Your task to perform on an android device: Check the best rated table lamp on Crate and Barrel Image 0: 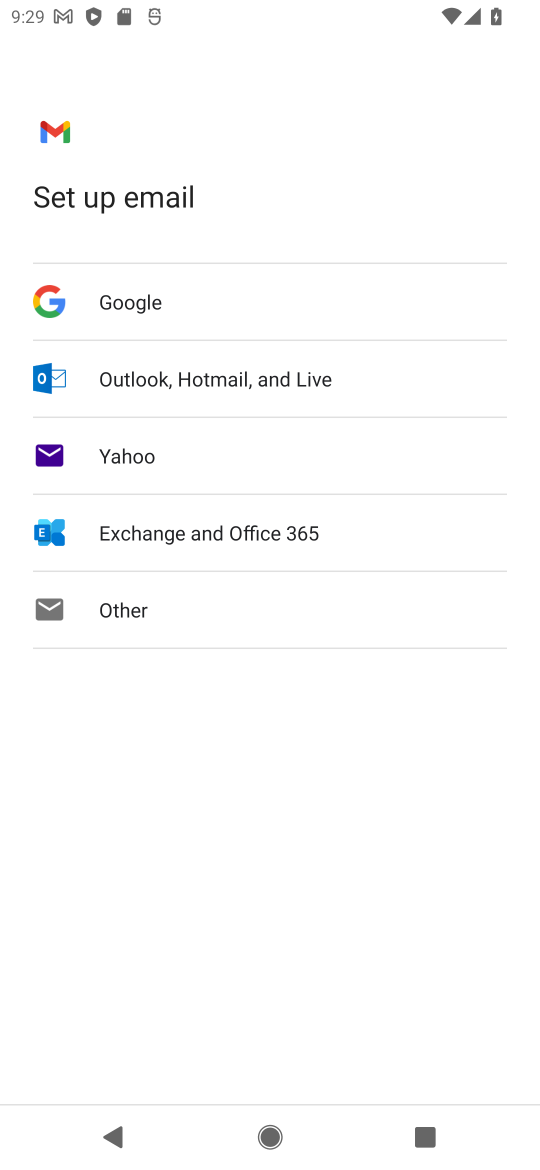
Step 0: press home button
Your task to perform on an android device: Check the best rated table lamp on Crate and Barrel Image 1: 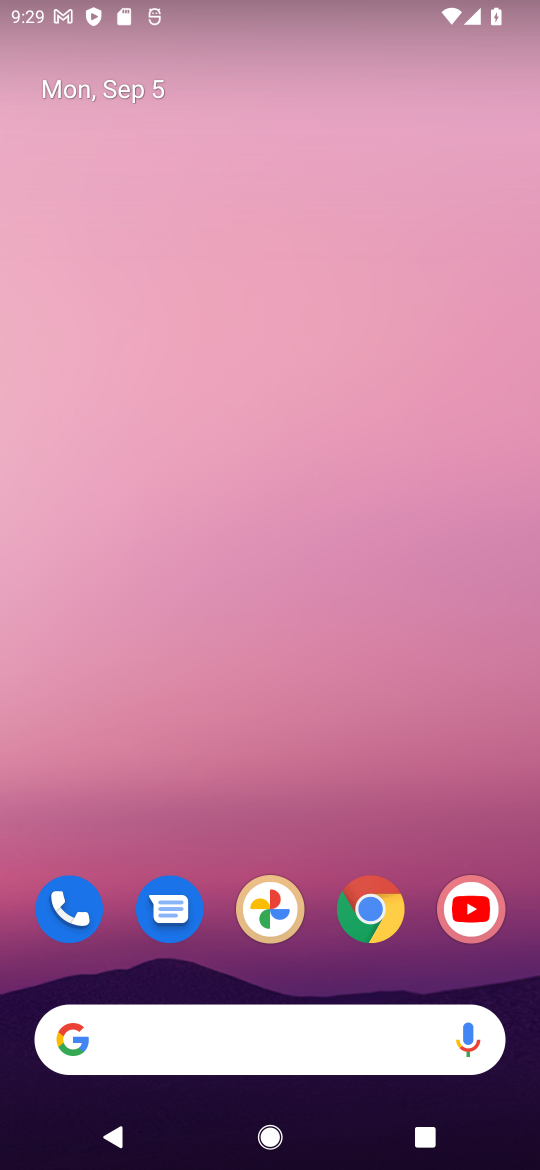
Step 1: click (366, 907)
Your task to perform on an android device: Check the best rated table lamp on Crate and Barrel Image 2: 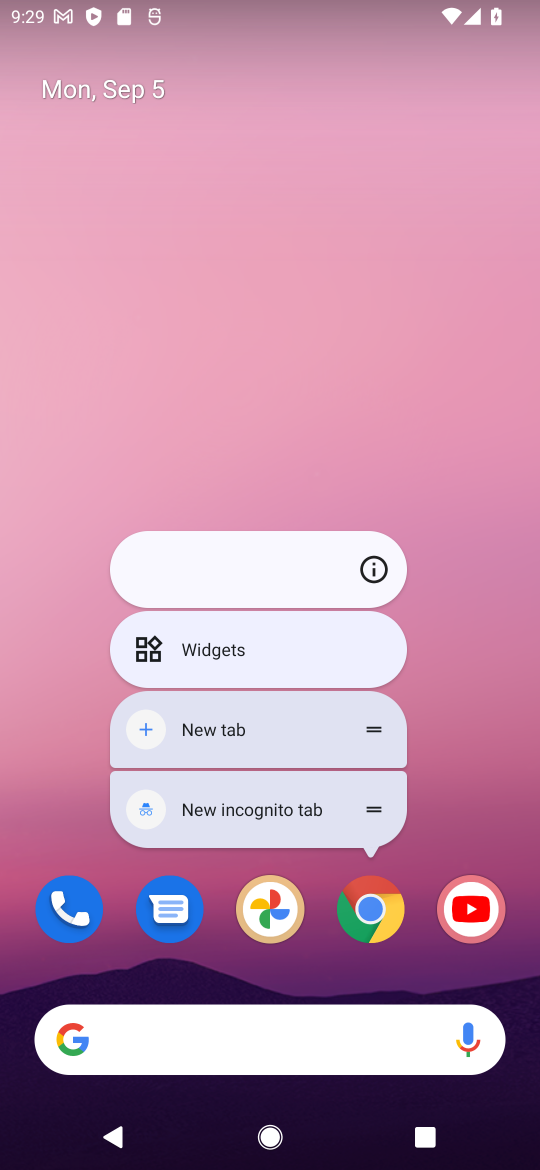
Step 2: click (366, 907)
Your task to perform on an android device: Check the best rated table lamp on Crate and Barrel Image 3: 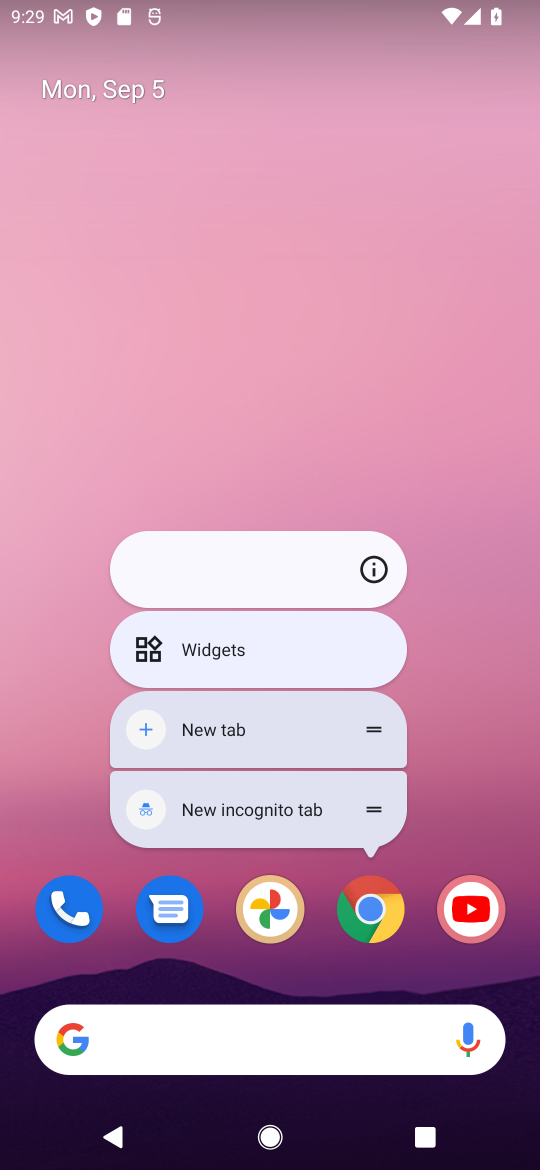
Step 3: click (366, 907)
Your task to perform on an android device: Check the best rated table lamp on Crate and Barrel Image 4: 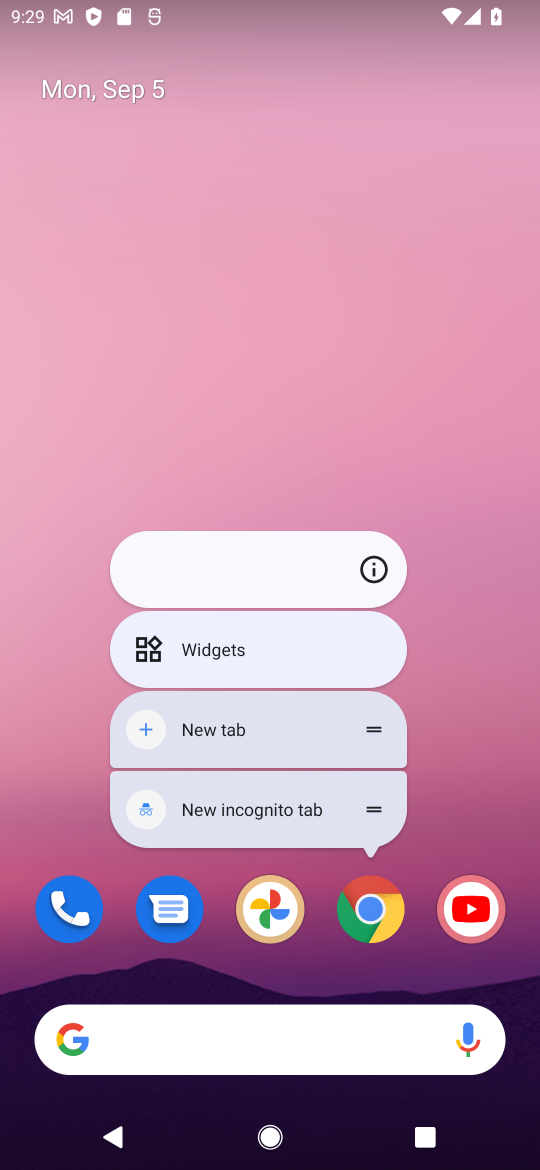
Step 4: click (366, 907)
Your task to perform on an android device: Check the best rated table lamp on Crate and Barrel Image 5: 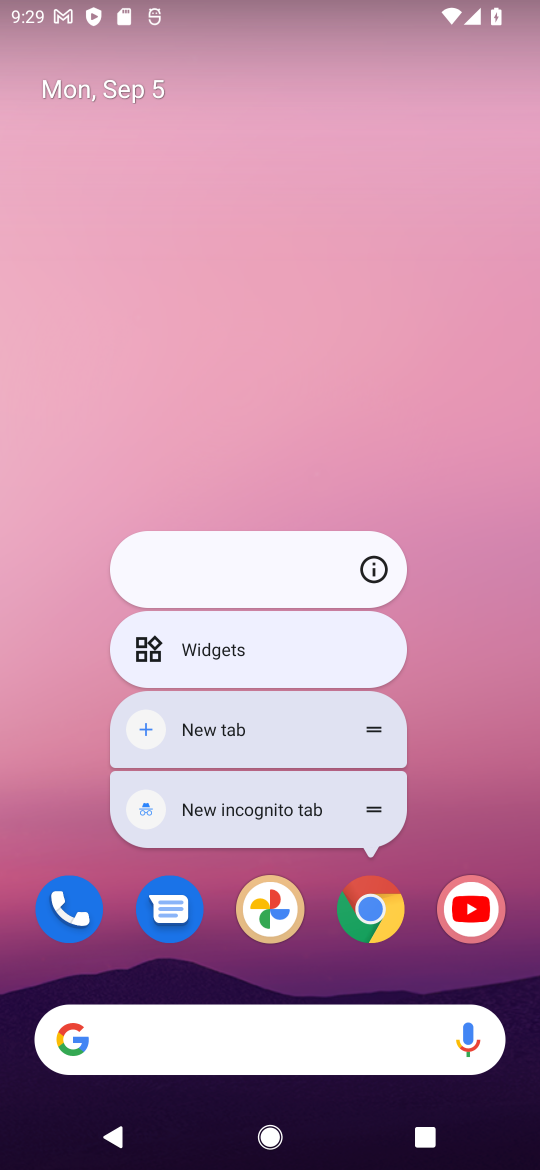
Step 5: click (366, 907)
Your task to perform on an android device: Check the best rated table lamp on Crate and Barrel Image 6: 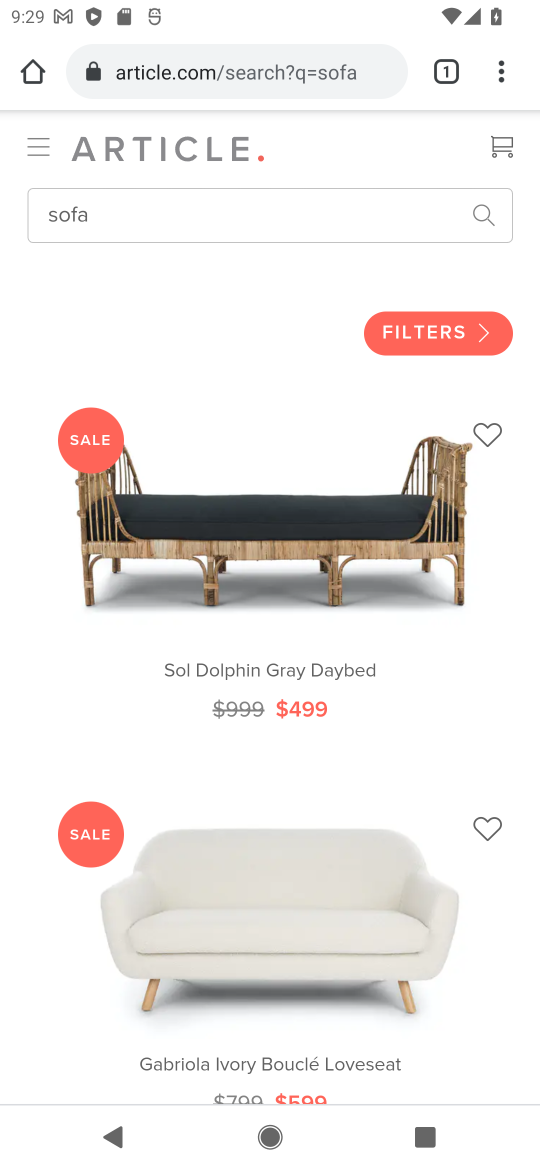
Step 6: click (255, 69)
Your task to perform on an android device: Check the best rated table lamp on Crate and Barrel Image 7: 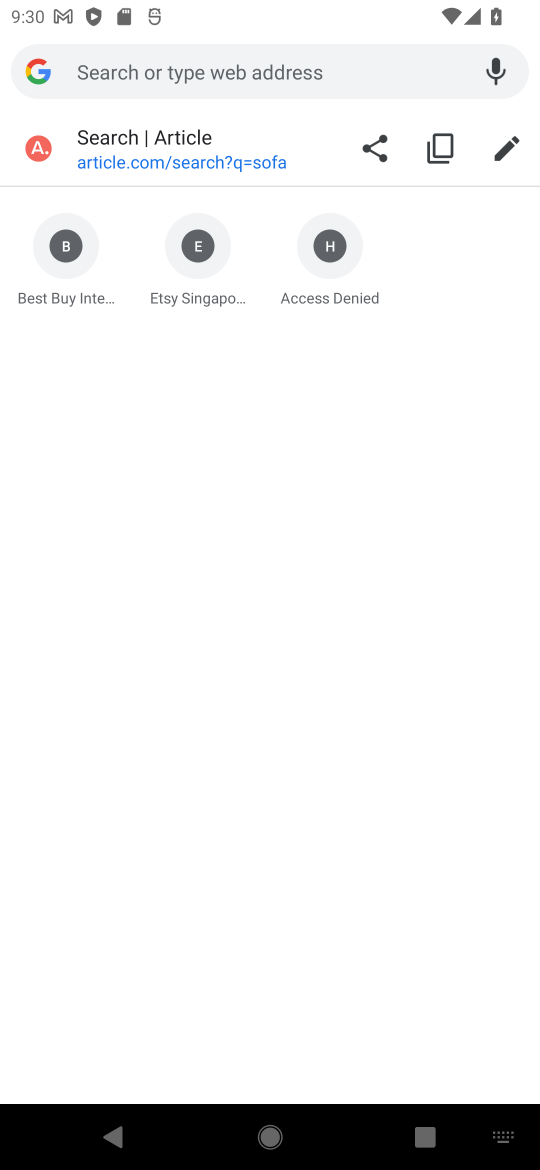
Step 7: type "crate and barrel"
Your task to perform on an android device: Check the best rated table lamp on Crate and Barrel Image 8: 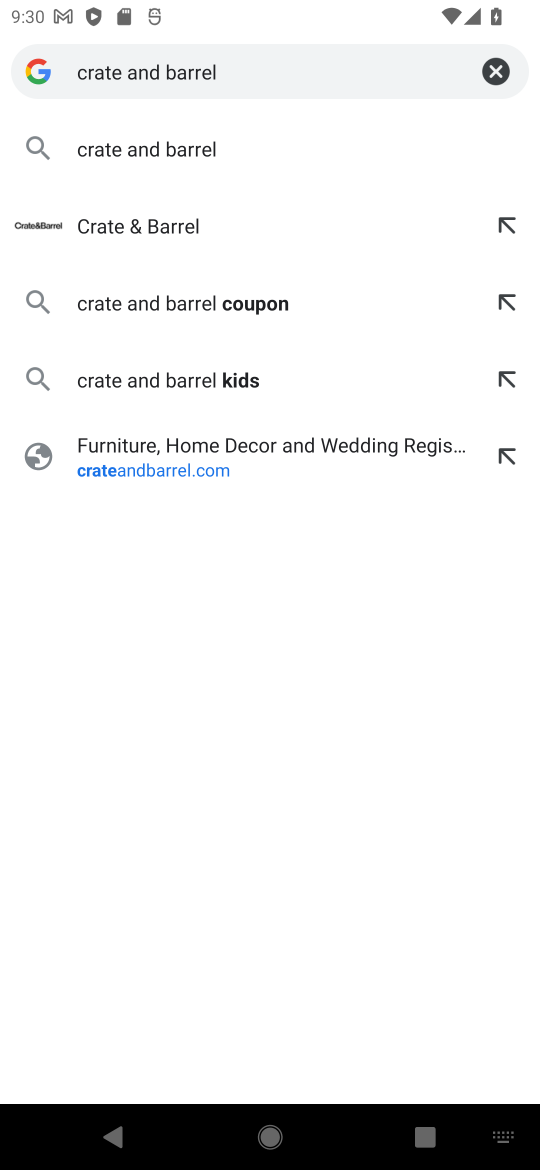
Step 8: click (253, 444)
Your task to perform on an android device: Check the best rated table lamp on Crate and Barrel Image 9: 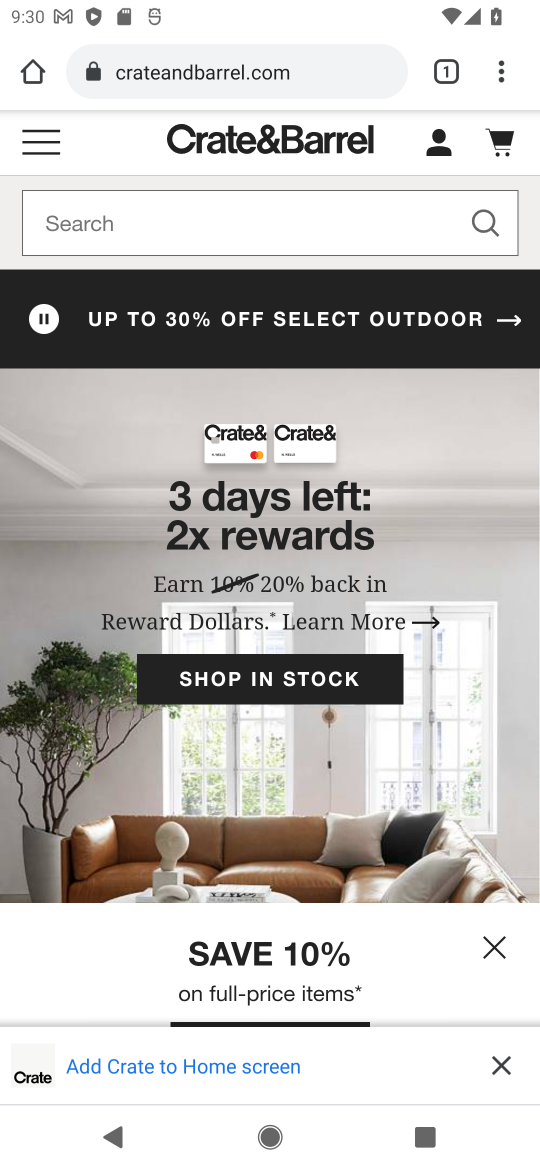
Step 9: click (113, 228)
Your task to perform on an android device: Check the best rated table lamp on Crate and Barrel Image 10: 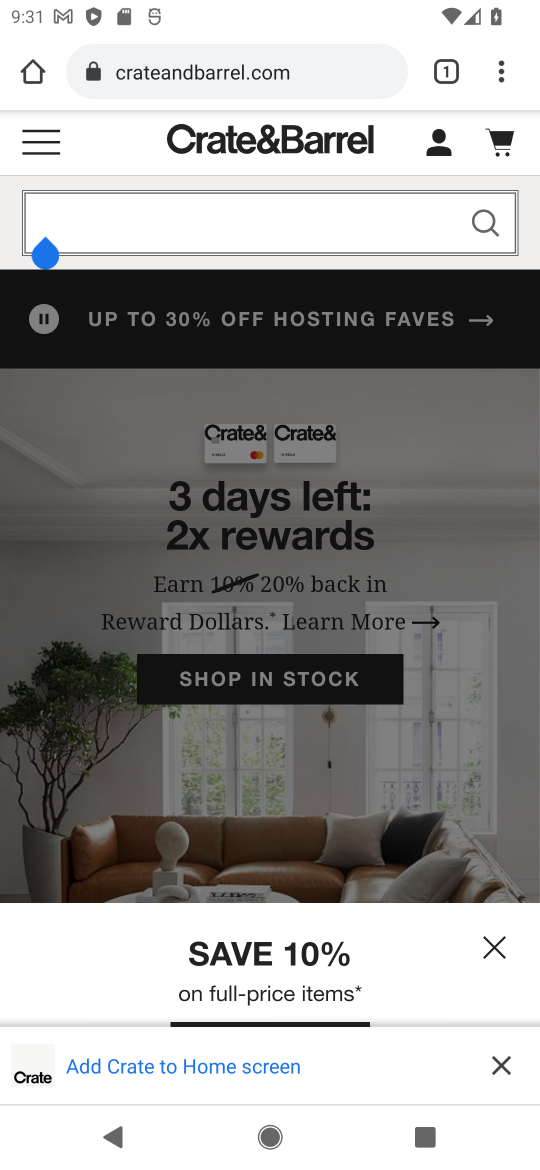
Step 10: type "best rated table lamp"
Your task to perform on an android device: Check the best rated table lamp on Crate and Barrel Image 11: 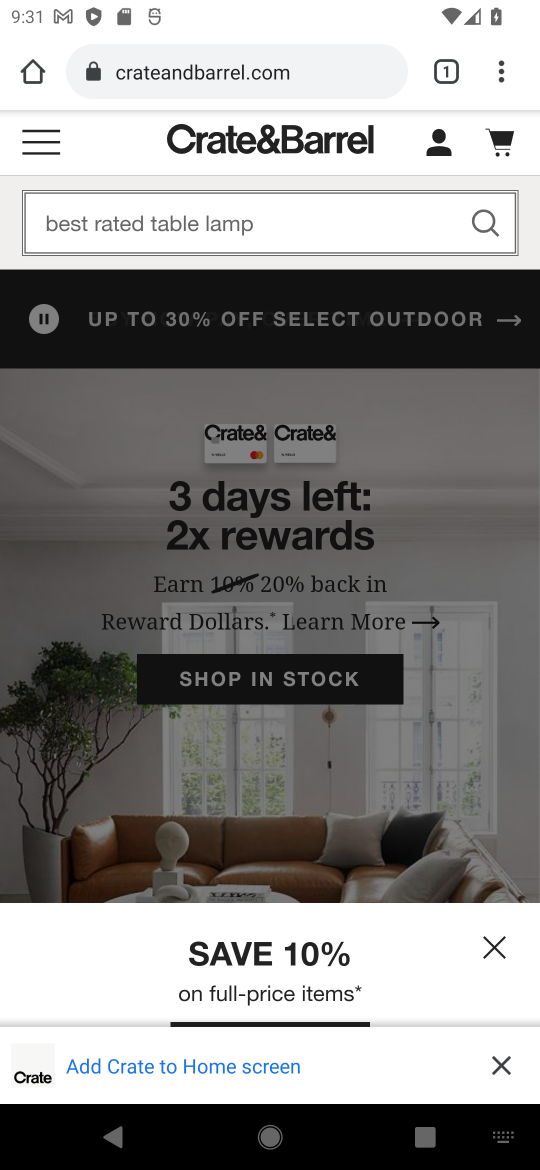
Step 11: click (486, 232)
Your task to perform on an android device: Check the best rated table lamp on Crate and Barrel Image 12: 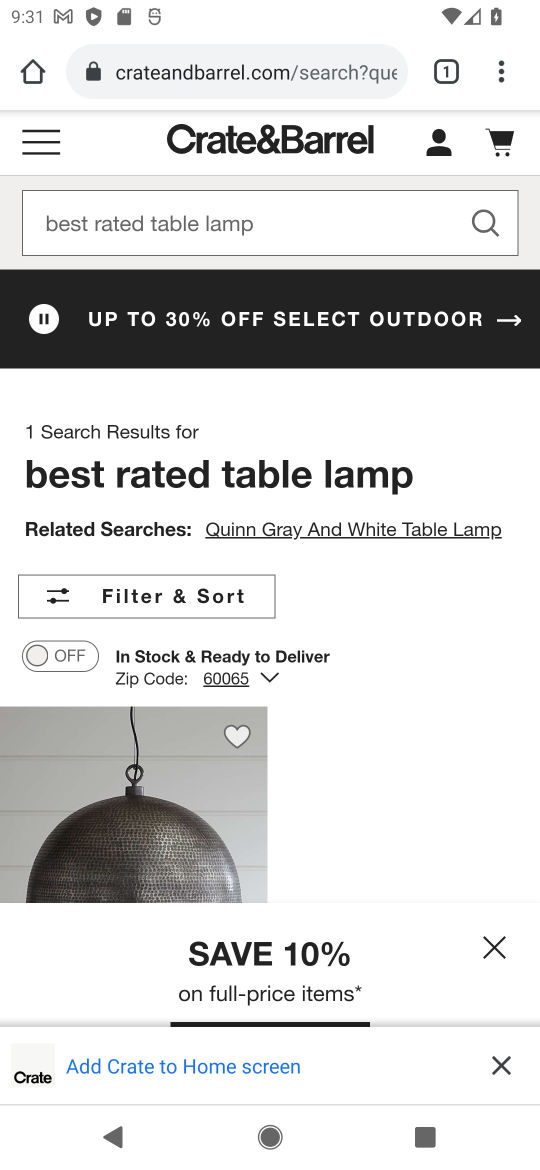
Step 12: task complete